Your task to perform on an android device: turn on wifi Image 0: 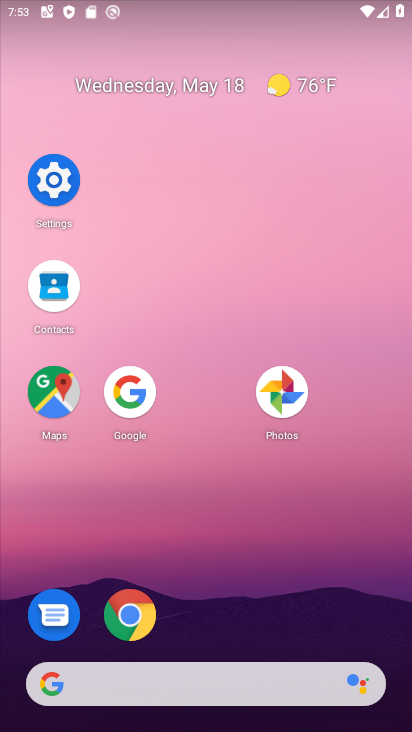
Step 0: click (73, 191)
Your task to perform on an android device: turn on wifi Image 1: 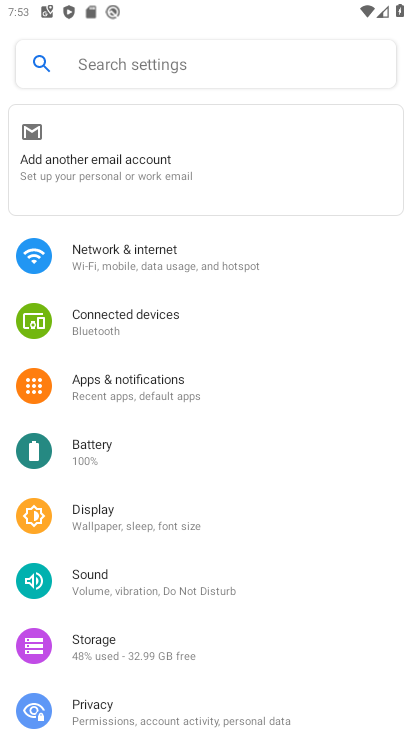
Step 1: click (160, 264)
Your task to perform on an android device: turn on wifi Image 2: 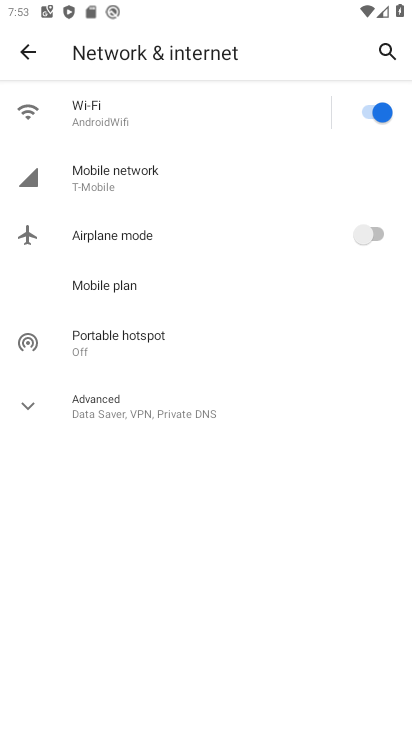
Step 2: task complete